Your task to perform on an android device: Show me productivity apps on the Play Store Image 0: 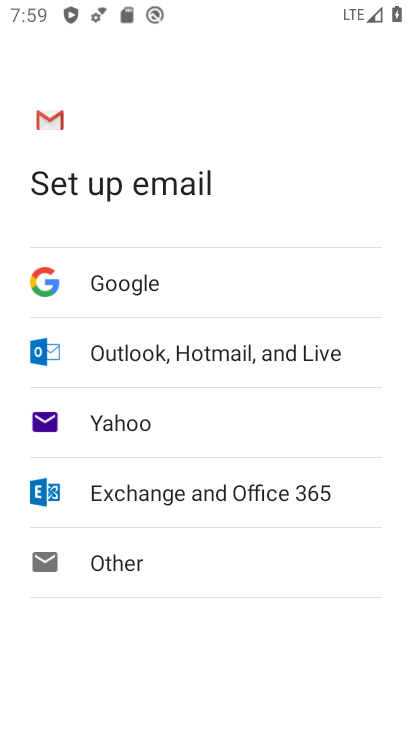
Step 0: press home button
Your task to perform on an android device: Show me productivity apps on the Play Store Image 1: 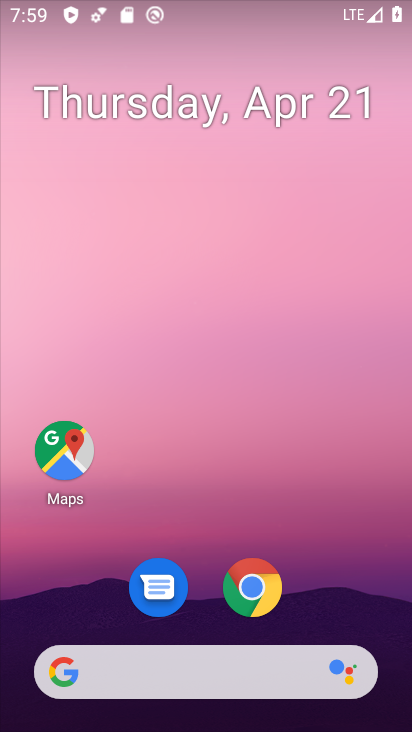
Step 1: drag from (369, 531) to (346, 298)
Your task to perform on an android device: Show me productivity apps on the Play Store Image 2: 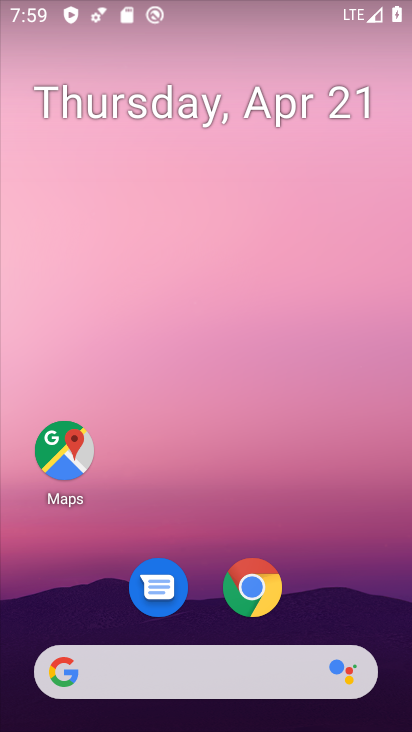
Step 2: drag from (375, 576) to (339, 159)
Your task to perform on an android device: Show me productivity apps on the Play Store Image 3: 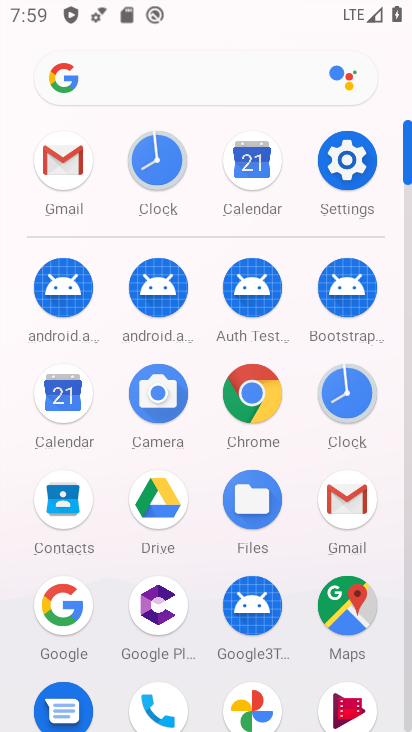
Step 3: drag from (406, 120) to (411, 167)
Your task to perform on an android device: Show me productivity apps on the Play Store Image 4: 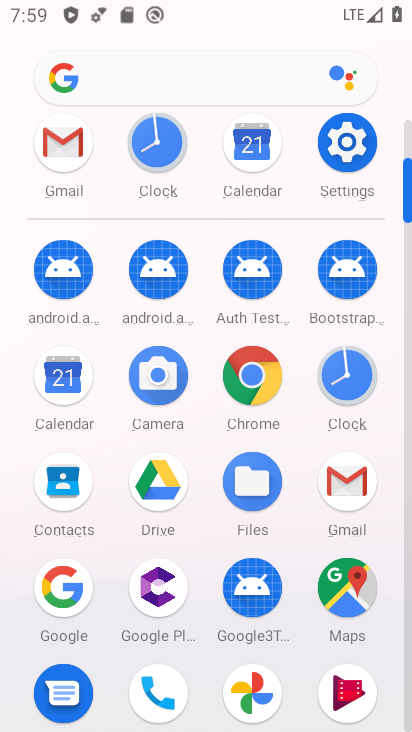
Step 4: click (407, 90)
Your task to perform on an android device: Show me productivity apps on the Play Store Image 5: 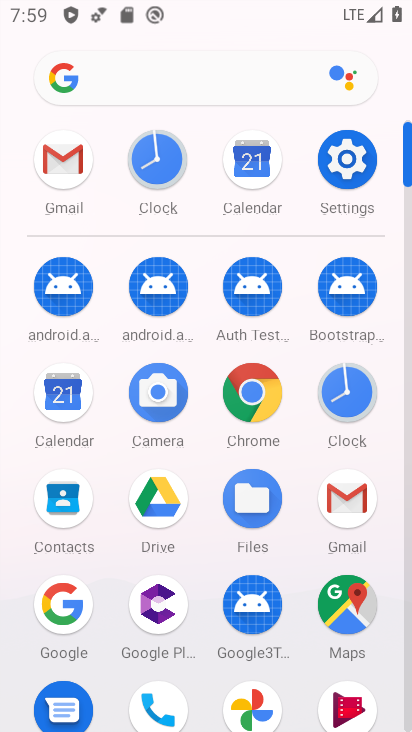
Step 5: click (407, 65)
Your task to perform on an android device: Show me productivity apps on the Play Store Image 6: 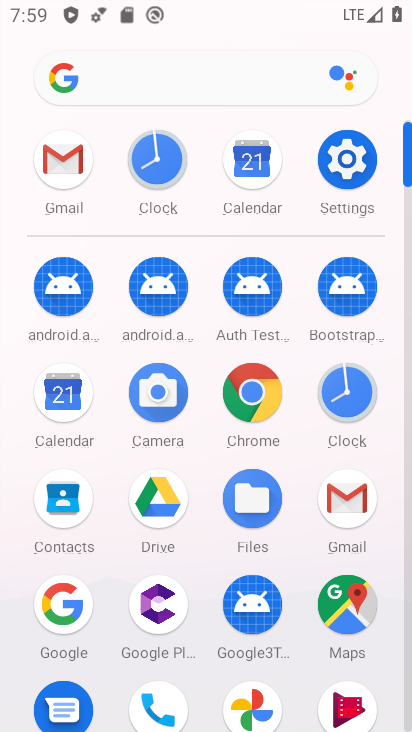
Step 6: drag from (407, 145) to (404, 56)
Your task to perform on an android device: Show me productivity apps on the Play Store Image 7: 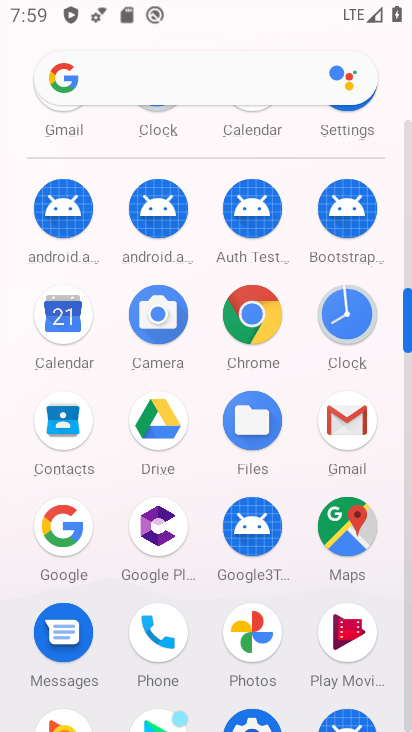
Step 7: drag from (406, 290) to (395, 107)
Your task to perform on an android device: Show me productivity apps on the Play Store Image 8: 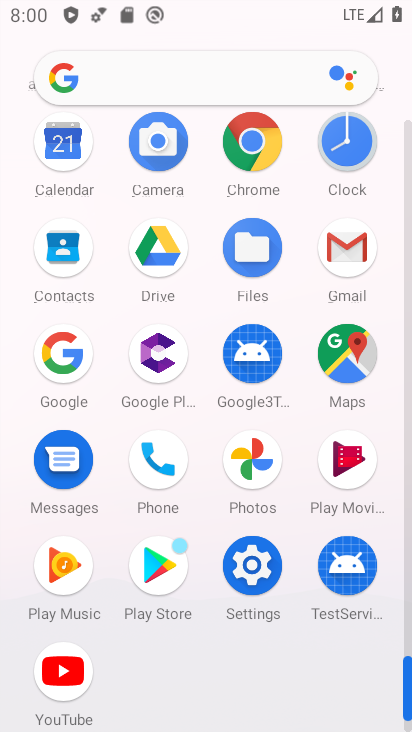
Step 8: click (148, 585)
Your task to perform on an android device: Show me productivity apps on the Play Store Image 9: 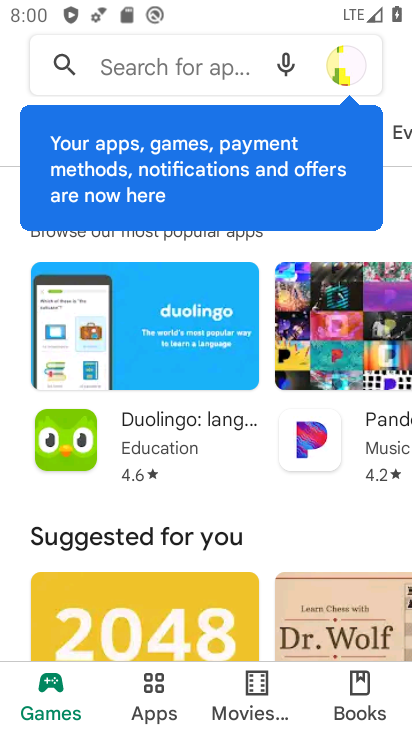
Step 9: click (407, 216)
Your task to perform on an android device: Show me productivity apps on the Play Store Image 10: 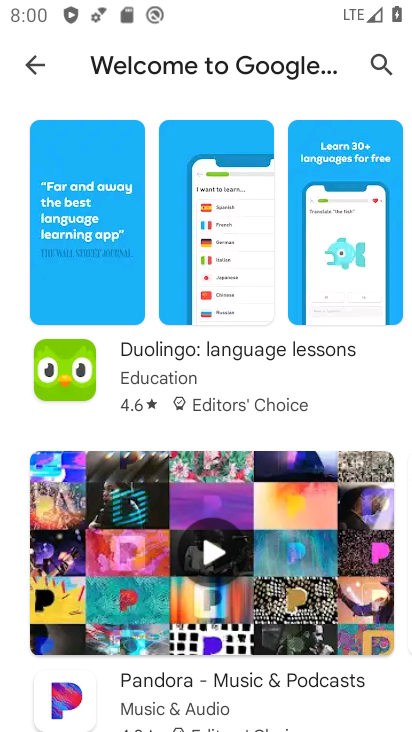
Step 10: click (36, 67)
Your task to perform on an android device: Show me productivity apps on the Play Store Image 11: 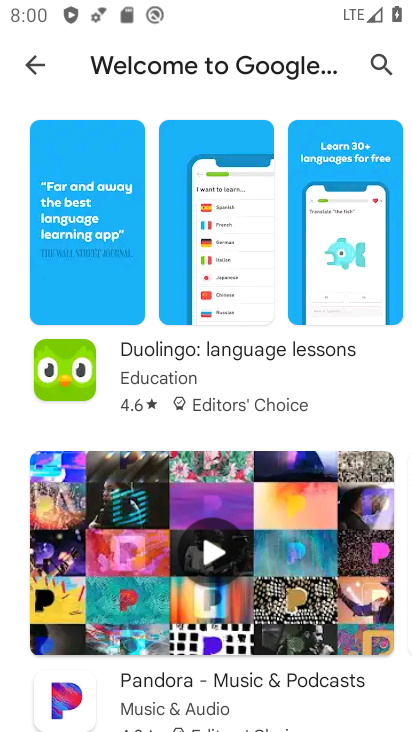
Step 11: click (24, 61)
Your task to perform on an android device: Show me productivity apps on the Play Store Image 12: 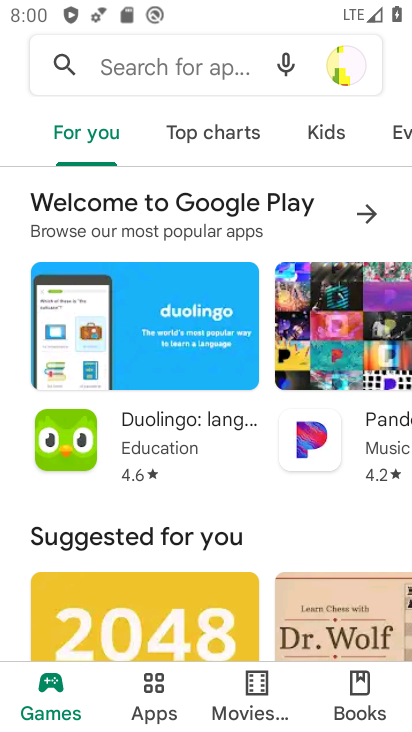
Step 12: drag from (235, 121) to (99, 105)
Your task to perform on an android device: Show me productivity apps on the Play Store Image 13: 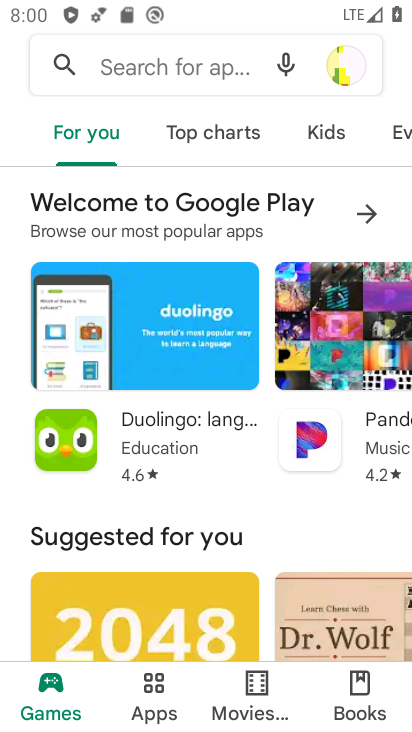
Step 13: drag from (96, 163) to (258, 162)
Your task to perform on an android device: Show me productivity apps on the Play Store Image 14: 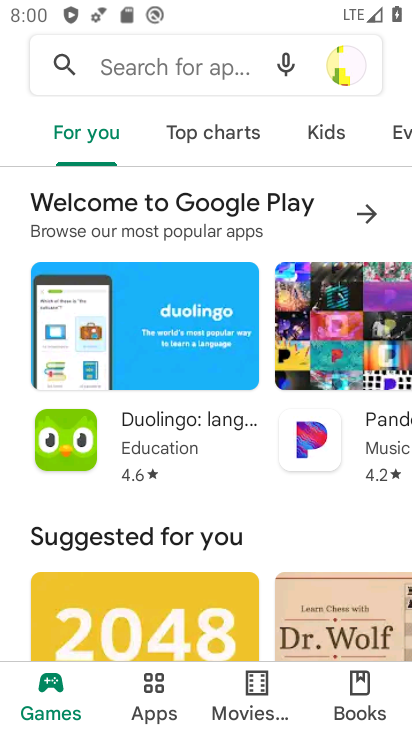
Step 14: drag from (81, 161) to (228, 177)
Your task to perform on an android device: Show me productivity apps on the Play Store Image 15: 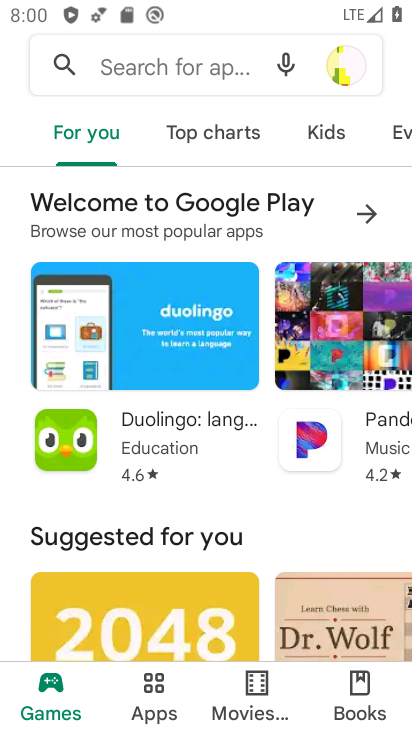
Step 15: drag from (129, 159) to (229, 158)
Your task to perform on an android device: Show me productivity apps on the Play Store Image 16: 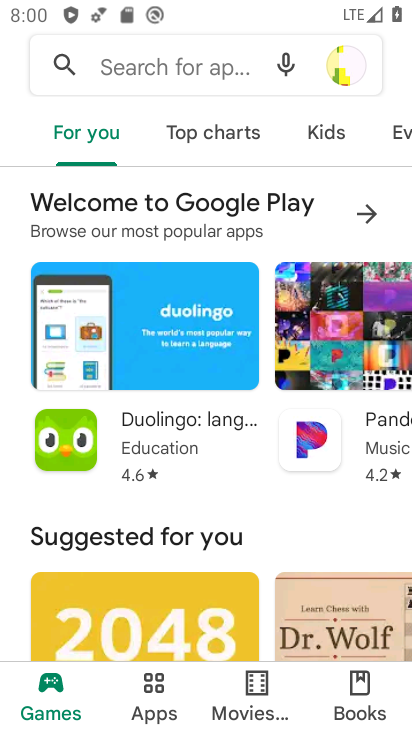
Step 16: click (149, 691)
Your task to perform on an android device: Show me productivity apps on the Play Store Image 17: 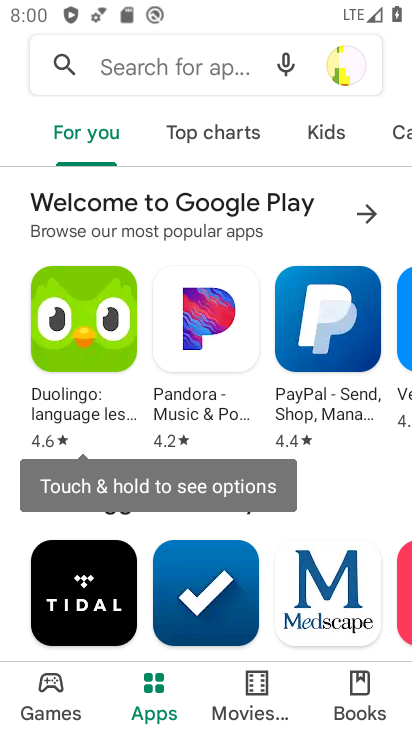
Step 17: drag from (251, 149) to (133, 151)
Your task to perform on an android device: Show me productivity apps on the Play Store Image 18: 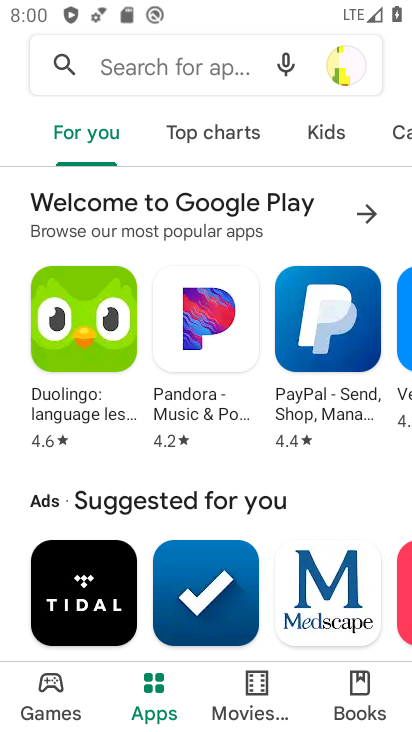
Step 18: click (141, 68)
Your task to perform on an android device: Show me productivity apps on the Play Store Image 19: 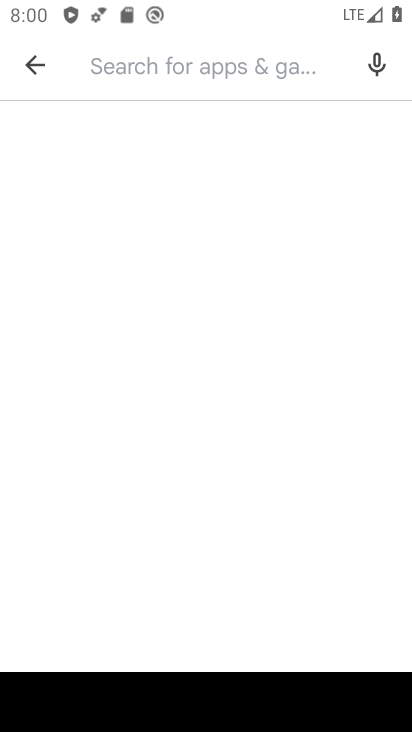
Step 19: type "productivity apps"
Your task to perform on an android device: Show me productivity apps on the Play Store Image 20: 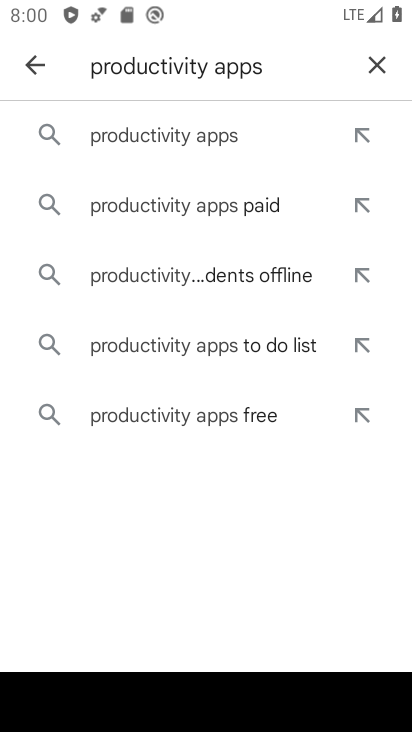
Step 20: click (175, 144)
Your task to perform on an android device: Show me productivity apps on the Play Store Image 21: 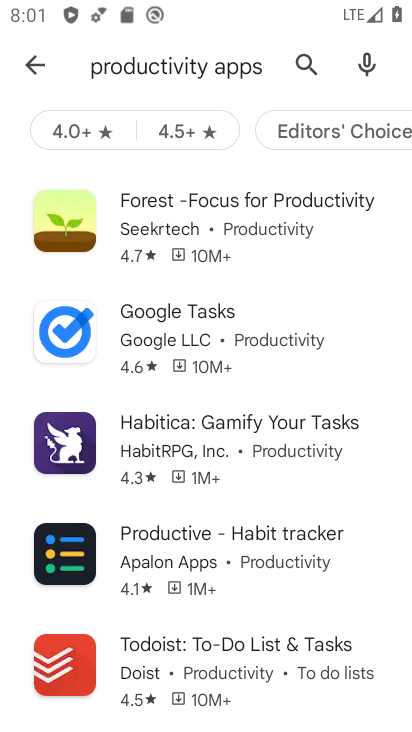
Step 21: task complete